Your task to perform on an android device: open app "Spotify: Music and Podcasts" Image 0: 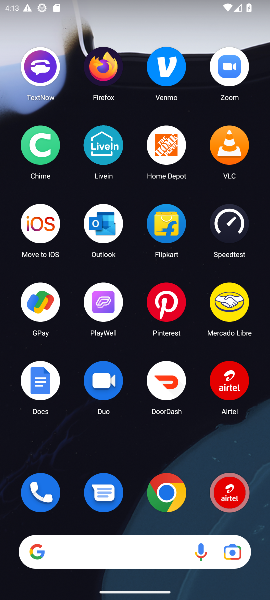
Step 0: drag from (146, 461) to (45, 73)
Your task to perform on an android device: open app "Spotify: Music and Podcasts" Image 1: 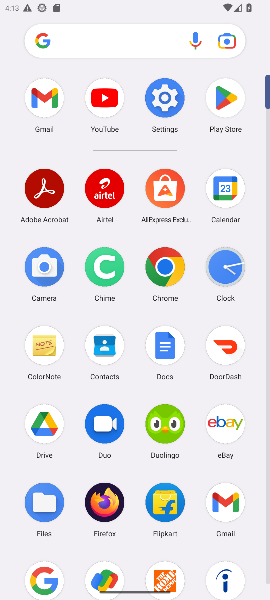
Step 1: click (214, 95)
Your task to perform on an android device: open app "Spotify: Music and Podcasts" Image 2: 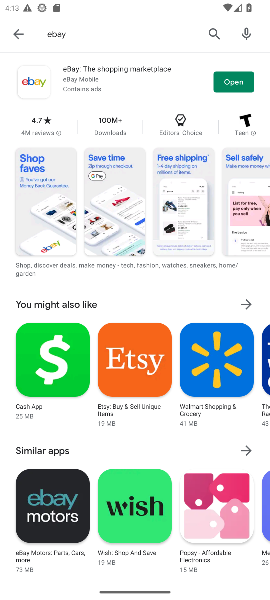
Step 2: click (205, 35)
Your task to perform on an android device: open app "Spotify: Music and Podcasts" Image 3: 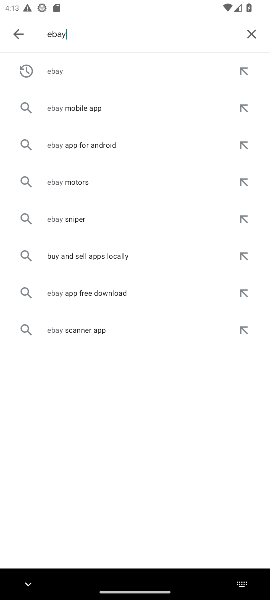
Step 3: click (258, 33)
Your task to perform on an android device: open app "Spotify: Music and Podcasts" Image 4: 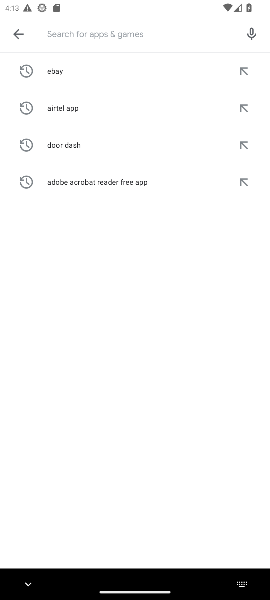
Step 4: type "spotify"
Your task to perform on an android device: open app "Spotify: Music and Podcasts" Image 5: 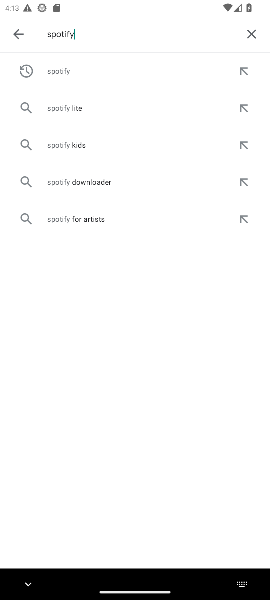
Step 5: click (105, 58)
Your task to perform on an android device: open app "Spotify: Music and Podcasts" Image 6: 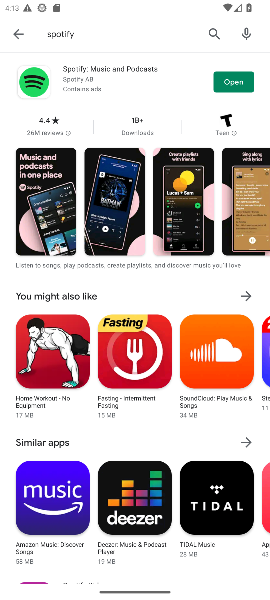
Step 6: click (240, 90)
Your task to perform on an android device: open app "Spotify: Music and Podcasts" Image 7: 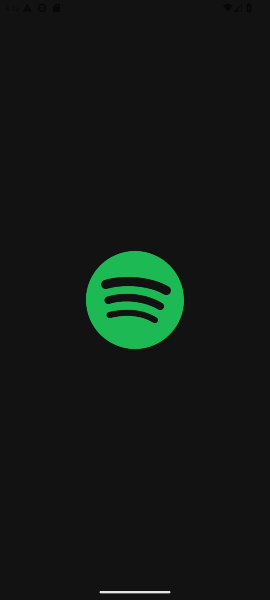
Step 7: task complete